Your task to perform on an android device: Search for seafood restaurants on Google Maps Image 0: 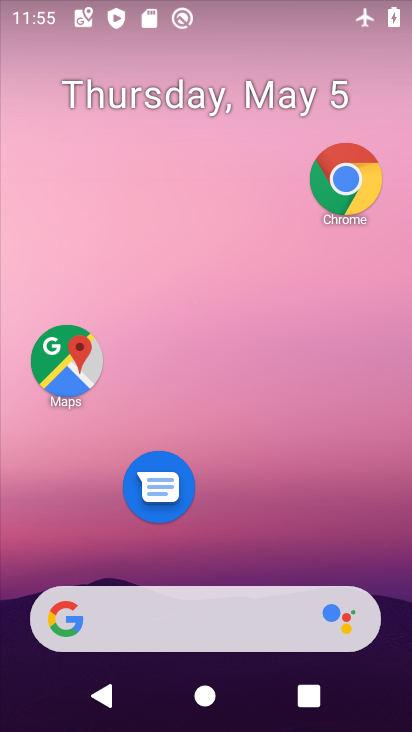
Step 0: click (57, 368)
Your task to perform on an android device: Search for seafood restaurants on Google Maps Image 1: 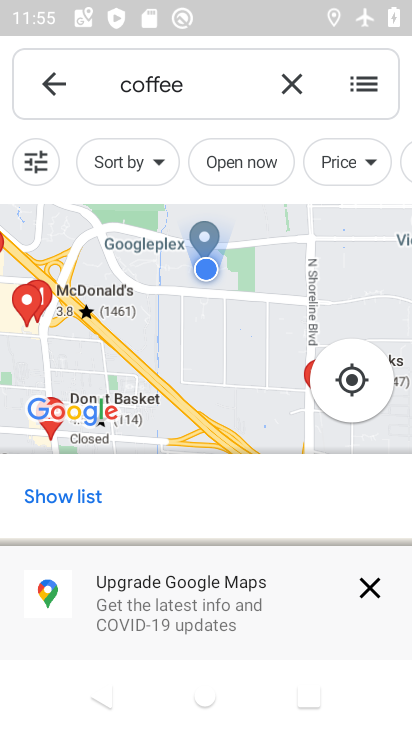
Step 1: click (300, 94)
Your task to perform on an android device: Search for seafood restaurants on Google Maps Image 2: 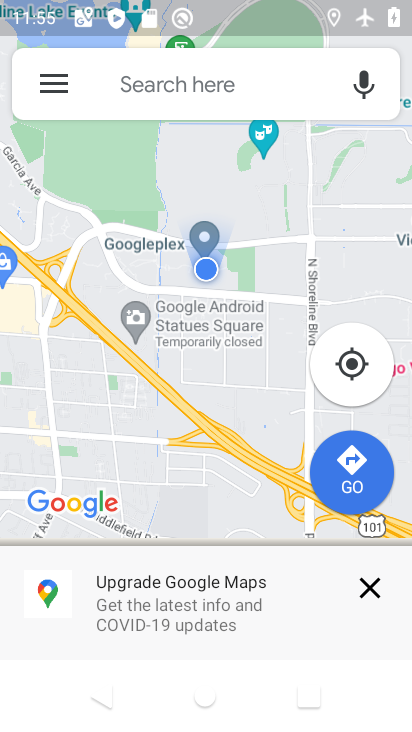
Step 2: click (270, 84)
Your task to perform on an android device: Search for seafood restaurants on Google Maps Image 3: 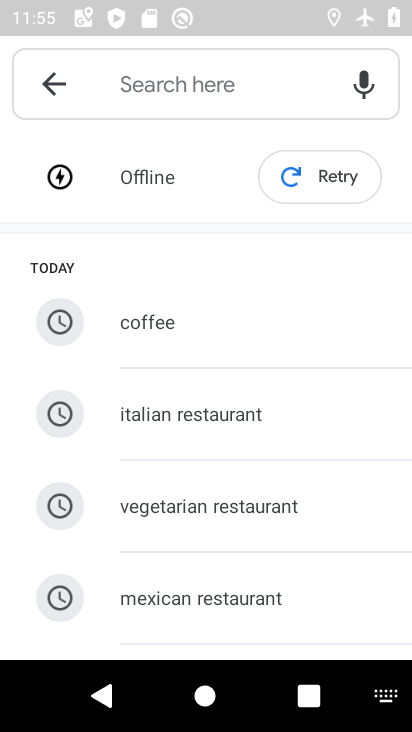
Step 3: type "seafood"
Your task to perform on an android device: Search for seafood restaurants on Google Maps Image 4: 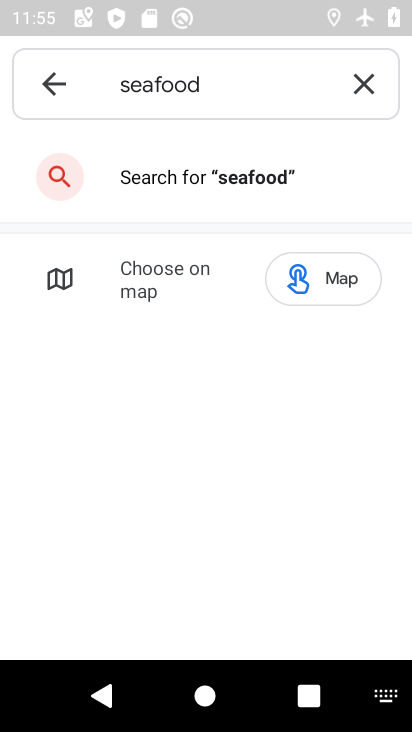
Step 4: click (248, 182)
Your task to perform on an android device: Search for seafood restaurants on Google Maps Image 5: 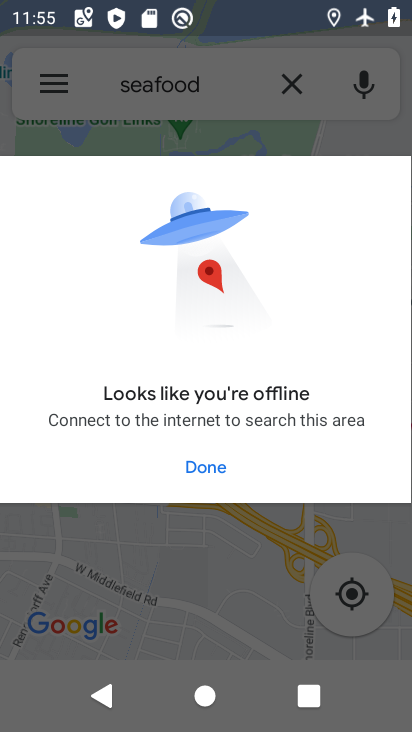
Step 5: task complete